Your task to perform on an android device: Open ESPN.com Image 0: 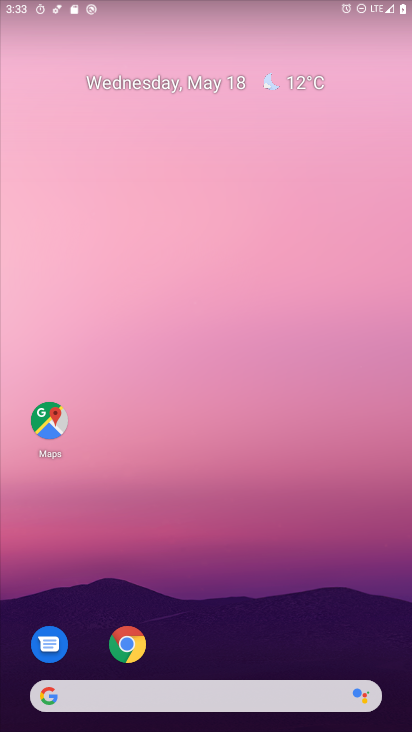
Step 0: click (117, 648)
Your task to perform on an android device: Open ESPN.com Image 1: 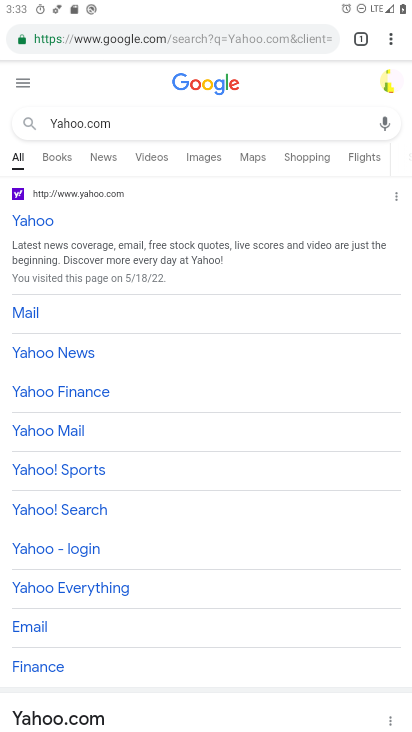
Step 1: click (331, 35)
Your task to perform on an android device: Open ESPN.com Image 2: 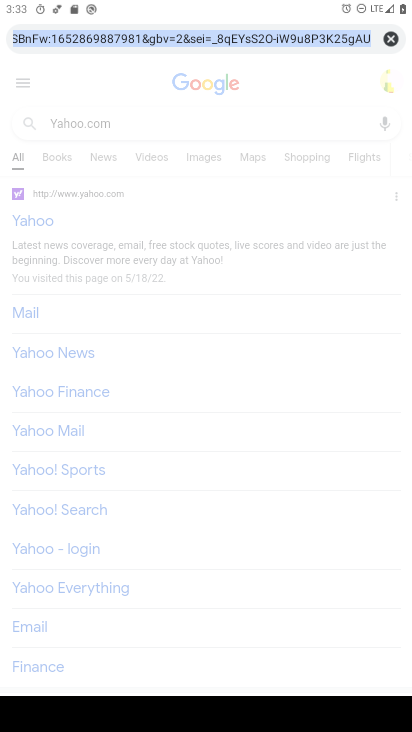
Step 2: click (388, 38)
Your task to perform on an android device: Open ESPN.com Image 3: 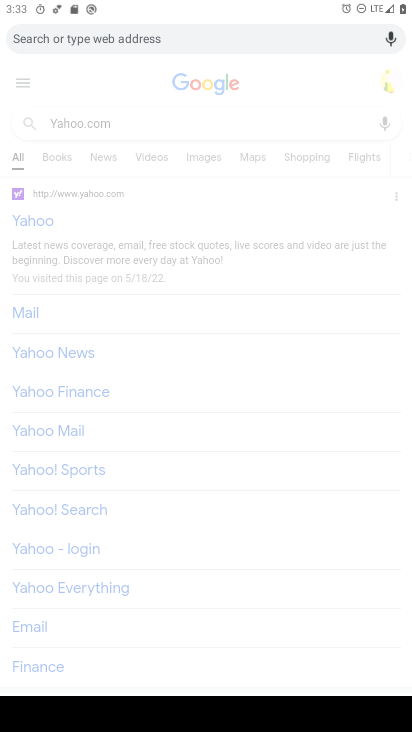
Step 3: type "ESPN.com"
Your task to perform on an android device: Open ESPN.com Image 4: 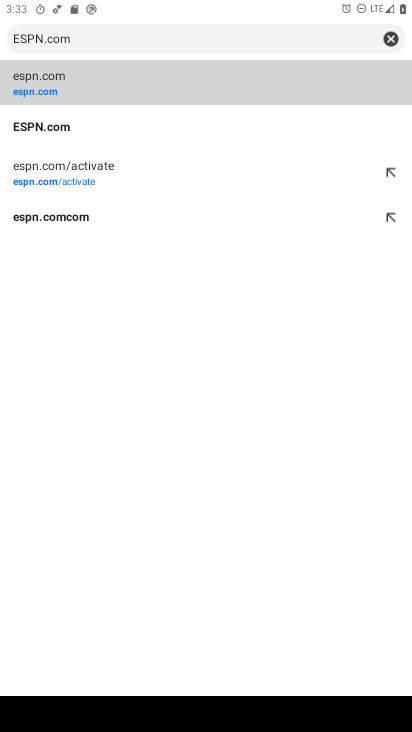
Step 4: click (28, 120)
Your task to perform on an android device: Open ESPN.com Image 5: 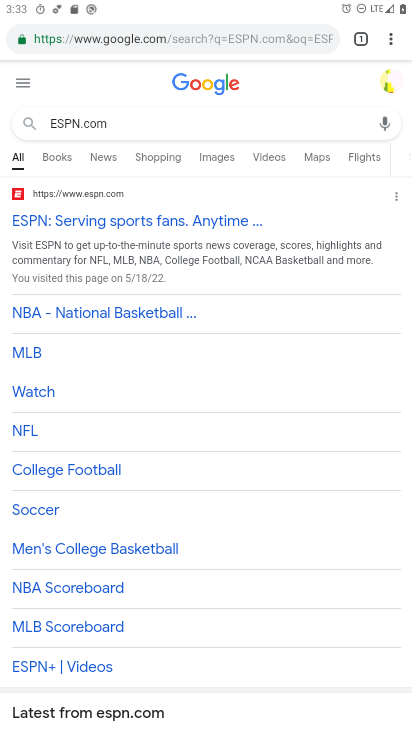
Step 5: task complete